Your task to perform on an android device: star an email in the gmail app Image 0: 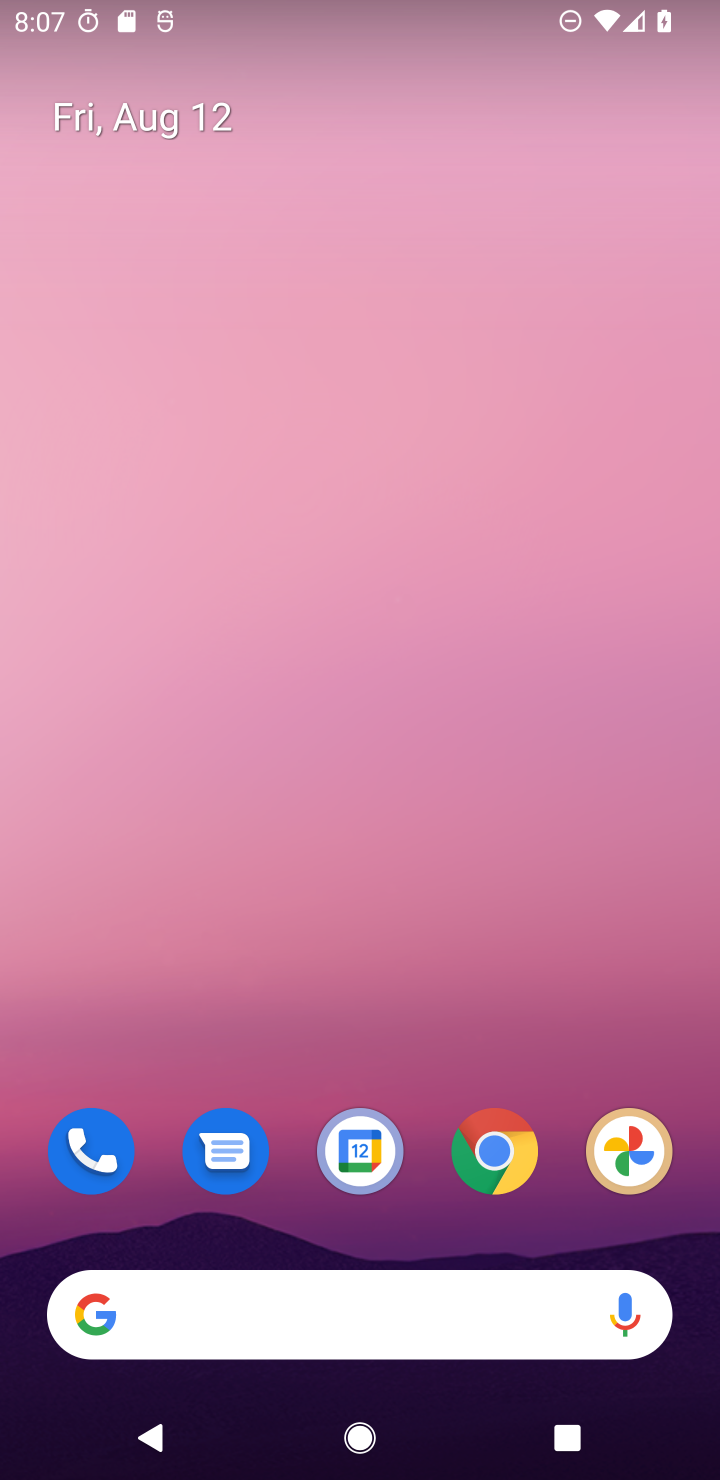
Step 0: drag from (466, 1021) to (329, 11)
Your task to perform on an android device: star an email in the gmail app Image 1: 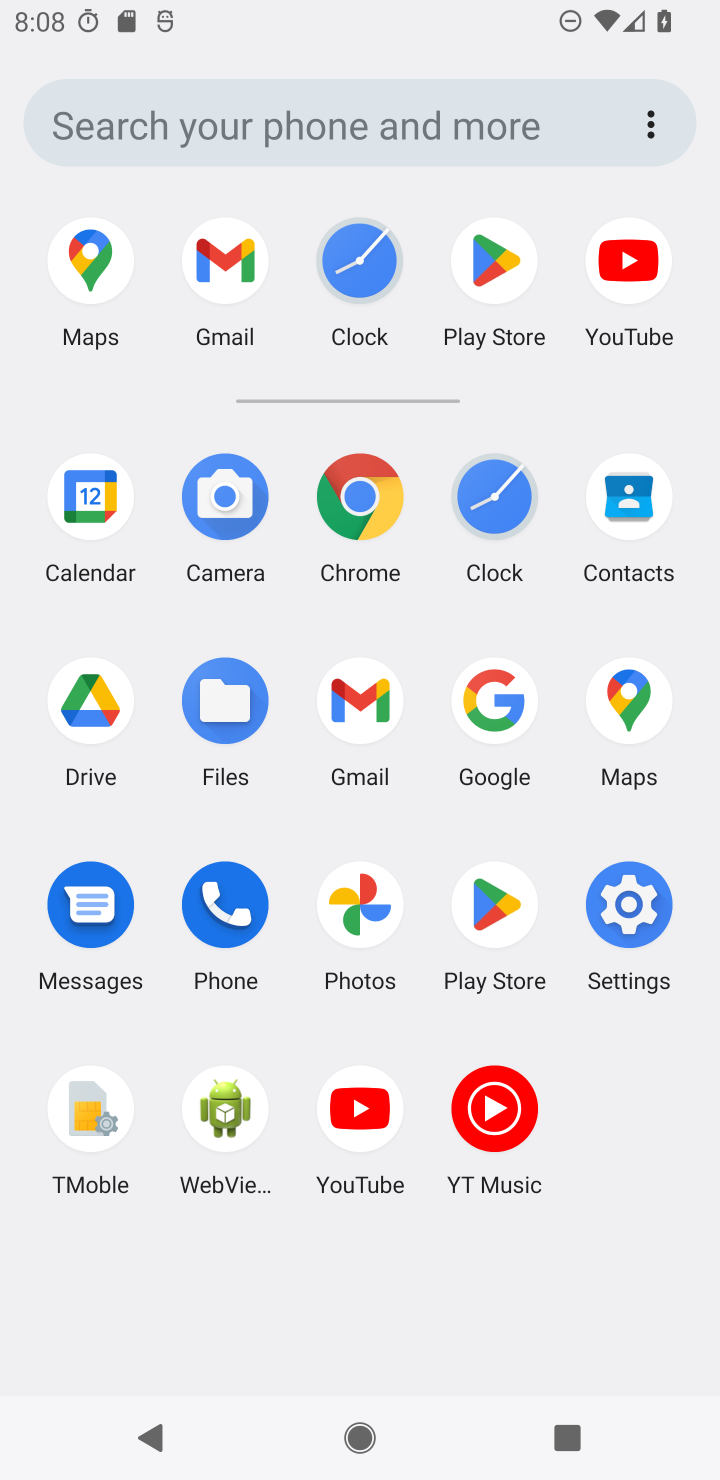
Step 1: click (385, 704)
Your task to perform on an android device: star an email in the gmail app Image 2: 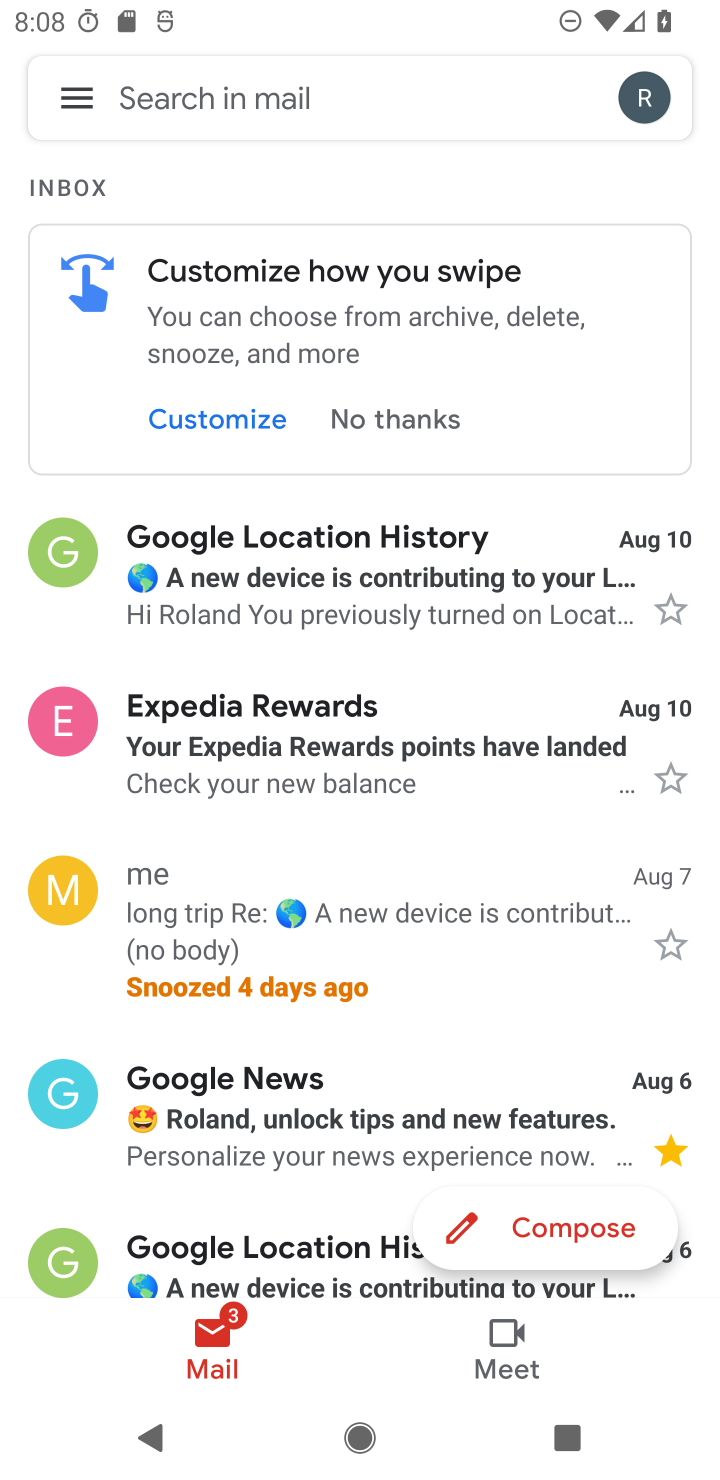
Step 2: click (69, 84)
Your task to perform on an android device: star an email in the gmail app Image 3: 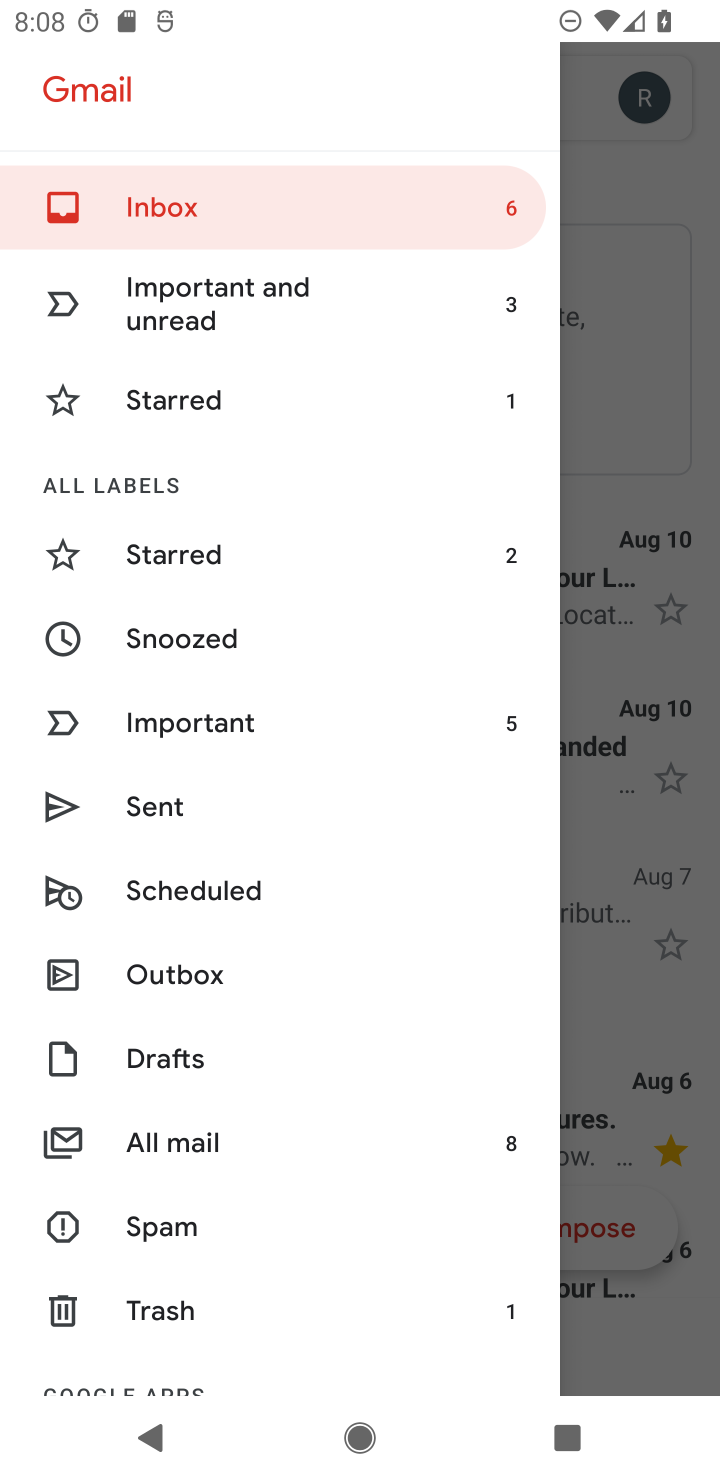
Step 3: click (605, 681)
Your task to perform on an android device: star an email in the gmail app Image 4: 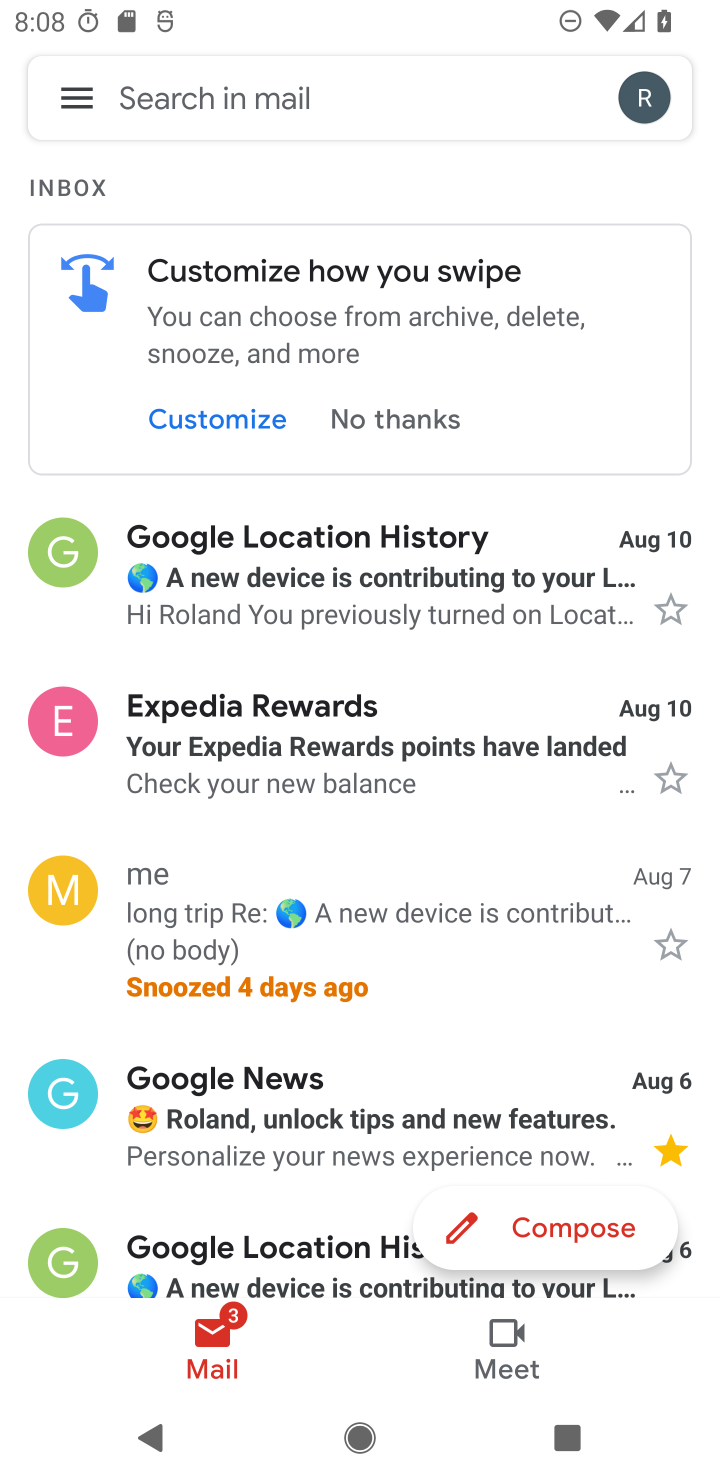
Step 4: click (673, 606)
Your task to perform on an android device: star an email in the gmail app Image 5: 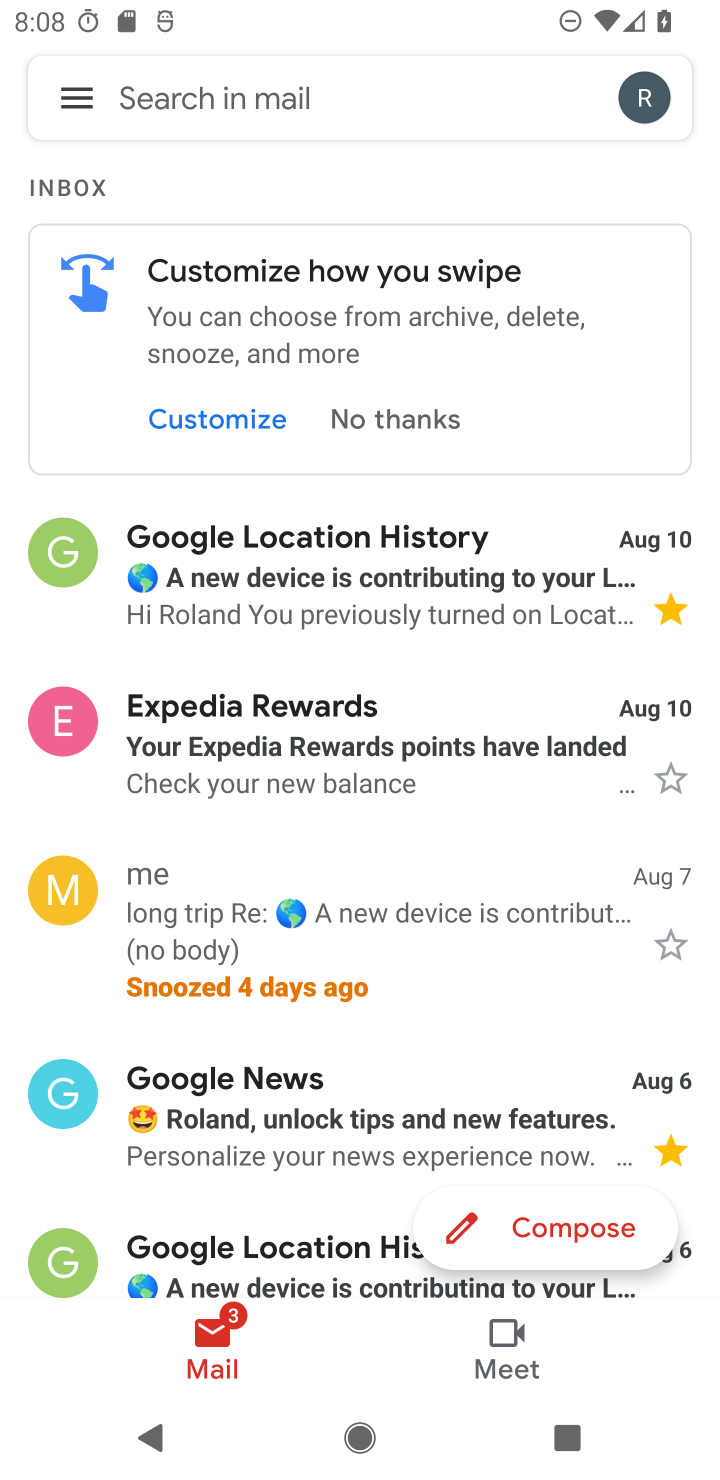
Step 5: task complete